Your task to perform on an android device: Open ESPN.com Image 0: 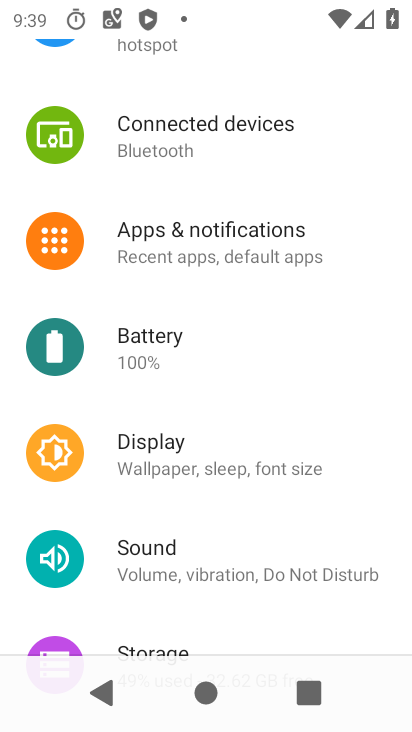
Step 0: press home button
Your task to perform on an android device: Open ESPN.com Image 1: 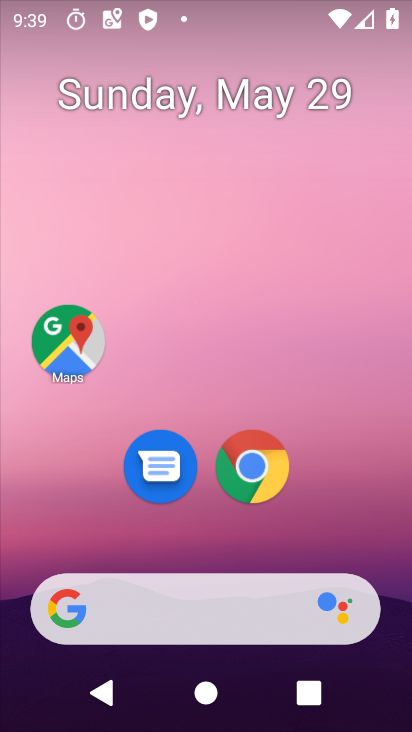
Step 1: click (274, 456)
Your task to perform on an android device: Open ESPN.com Image 2: 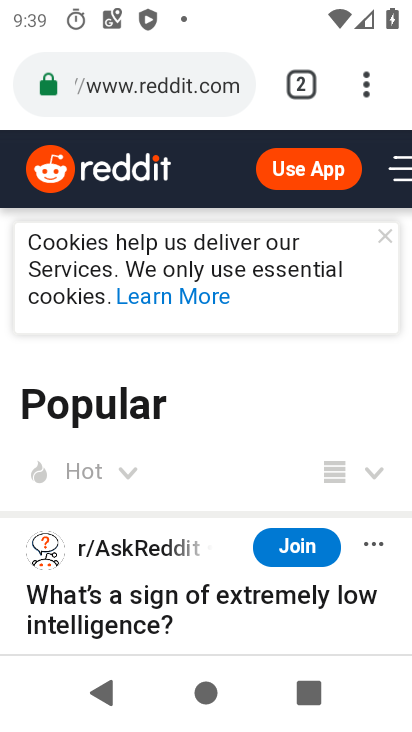
Step 2: click (296, 83)
Your task to perform on an android device: Open ESPN.com Image 3: 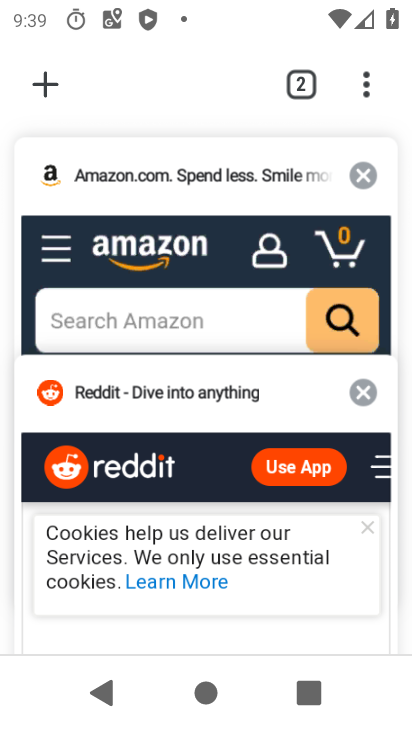
Step 3: click (37, 84)
Your task to perform on an android device: Open ESPN.com Image 4: 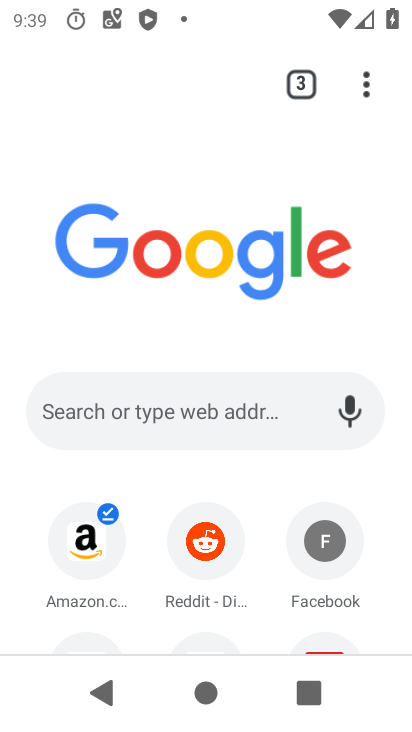
Step 4: drag from (211, 558) to (197, 282)
Your task to perform on an android device: Open ESPN.com Image 5: 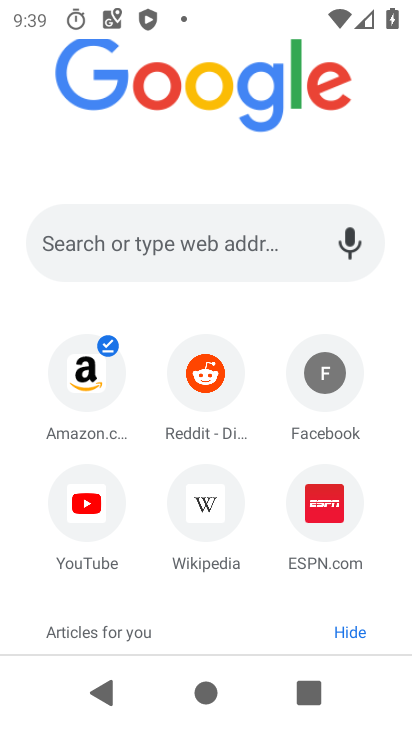
Step 5: click (307, 506)
Your task to perform on an android device: Open ESPN.com Image 6: 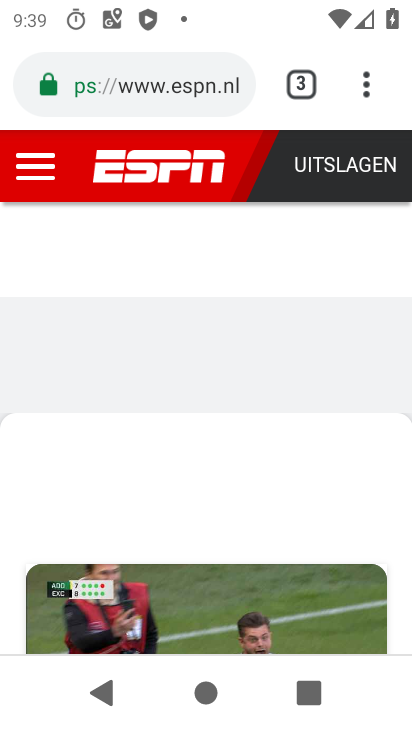
Step 6: task complete